Your task to perform on an android device: Open Chrome and go to the settings page Image 0: 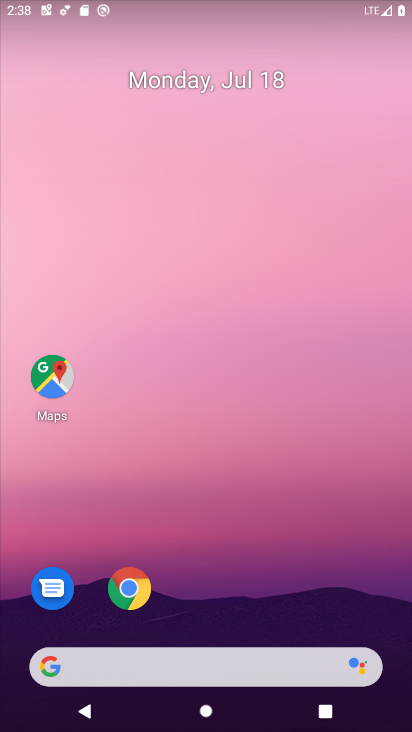
Step 0: click (131, 595)
Your task to perform on an android device: Open Chrome and go to the settings page Image 1: 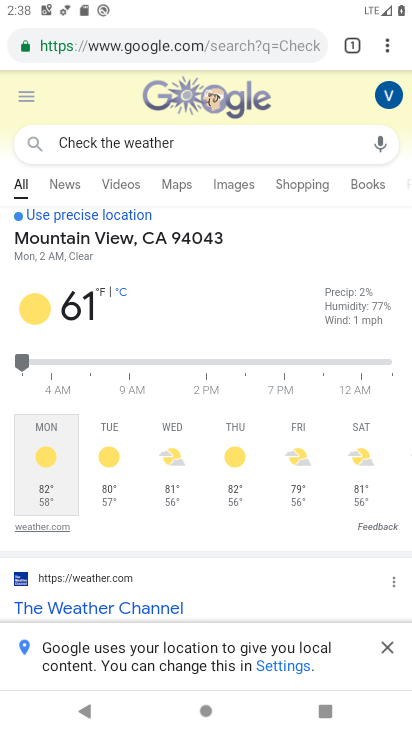
Step 1: click (384, 43)
Your task to perform on an android device: Open Chrome and go to the settings page Image 2: 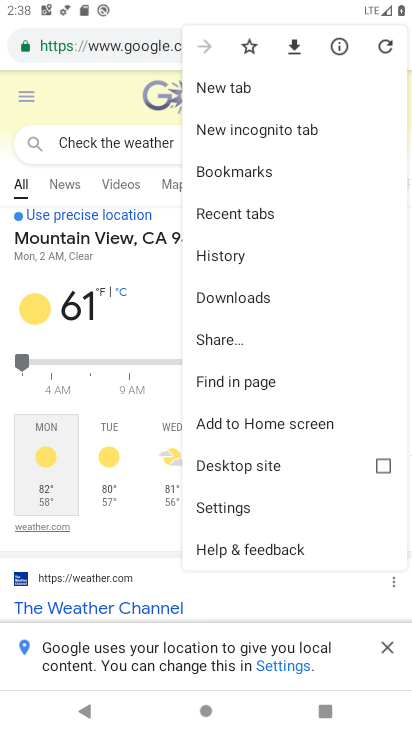
Step 2: click (225, 500)
Your task to perform on an android device: Open Chrome and go to the settings page Image 3: 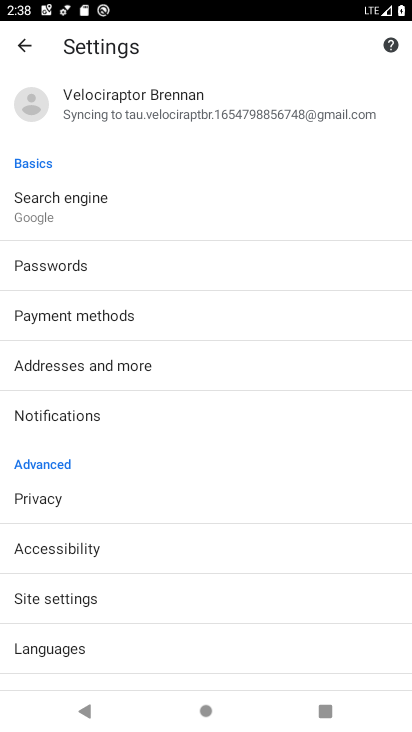
Step 3: task complete